Your task to perform on an android device: check the backup settings in the google photos Image 0: 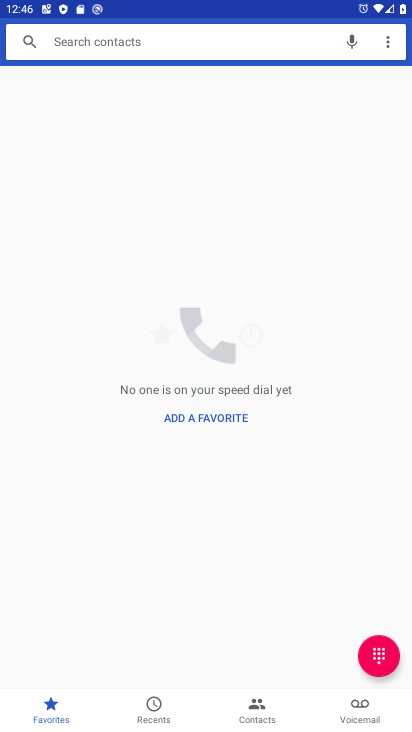
Step 0: press home button
Your task to perform on an android device: check the backup settings in the google photos Image 1: 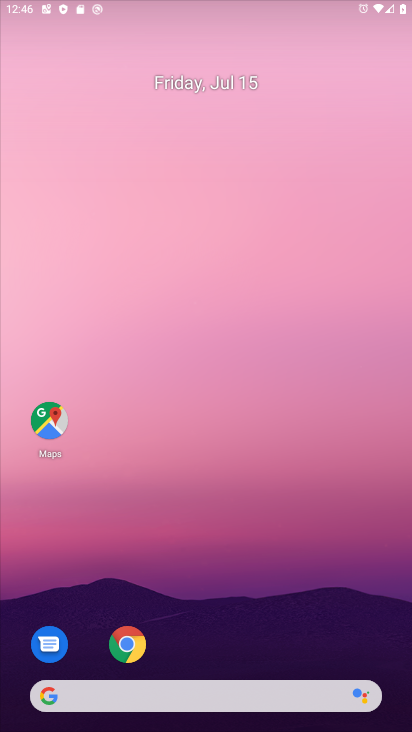
Step 1: drag from (380, 655) to (277, 34)
Your task to perform on an android device: check the backup settings in the google photos Image 2: 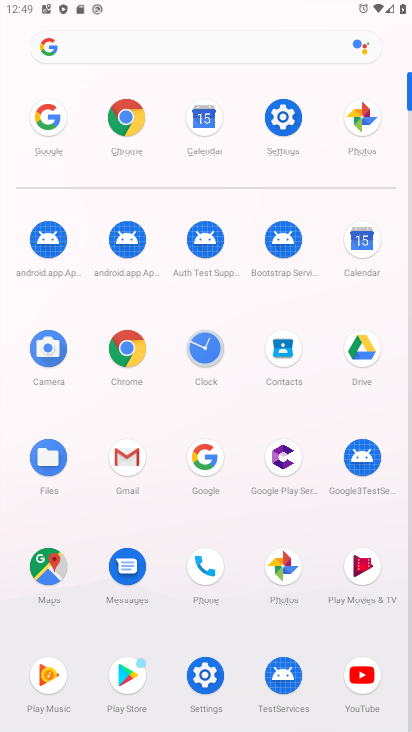
Step 2: click (276, 586)
Your task to perform on an android device: check the backup settings in the google photos Image 3: 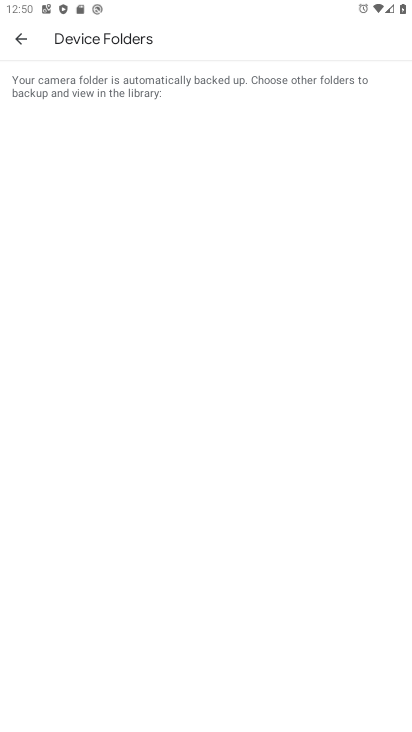
Step 3: task complete